Your task to perform on an android device: turn notification dots on Image 0: 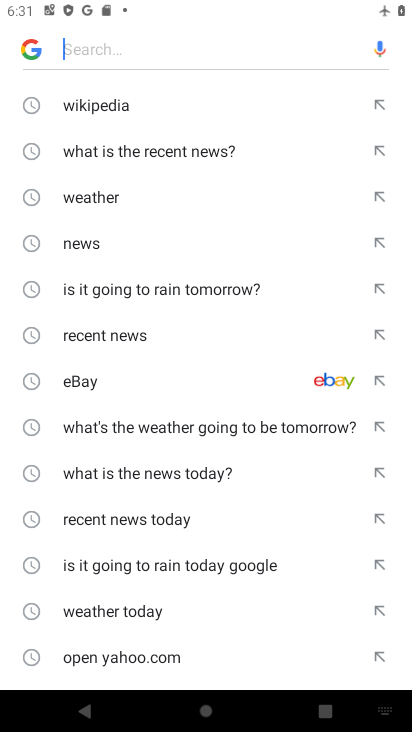
Step 0: press home button
Your task to perform on an android device: turn notification dots on Image 1: 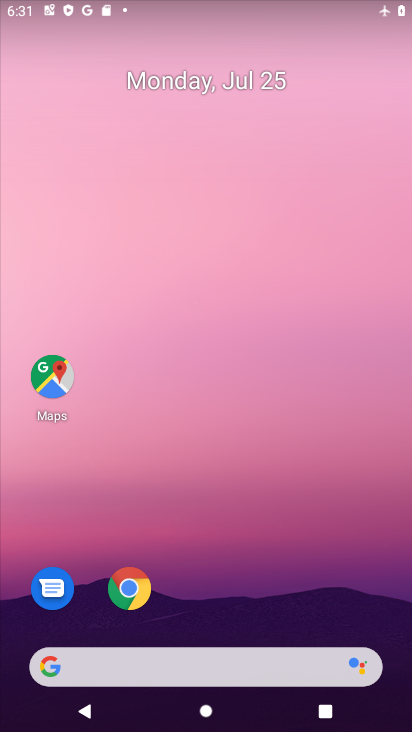
Step 1: drag from (314, 1) to (232, 482)
Your task to perform on an android device: turn notification dots on Image 2: 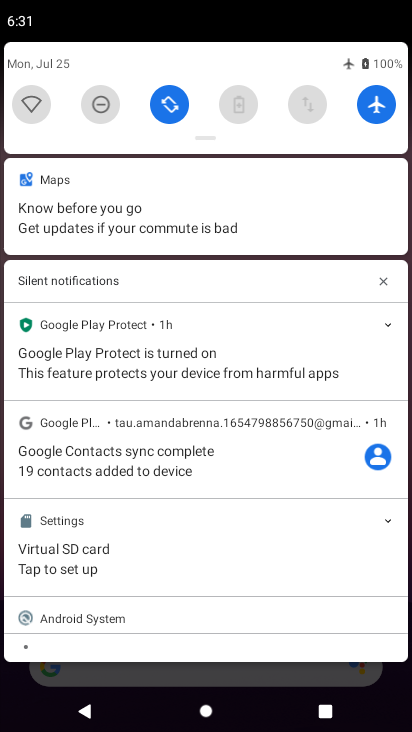
Step 2: click (382, 103)
Your task to perform on an android device: turn notification dots on Image 3: 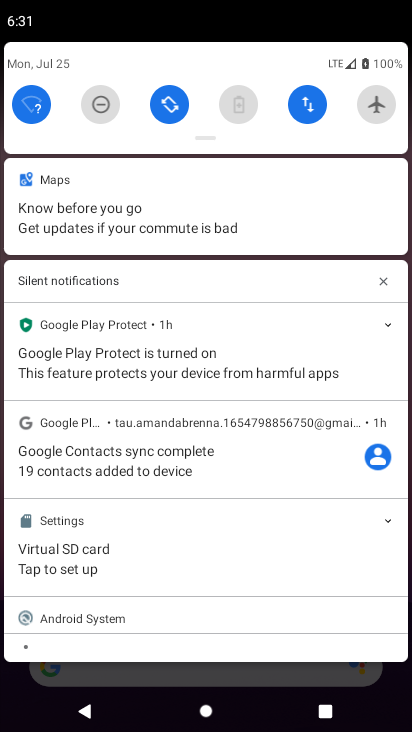
Step 3: click (297, 685)
Your task to perform on an android device: turn notification dots on Image 4: 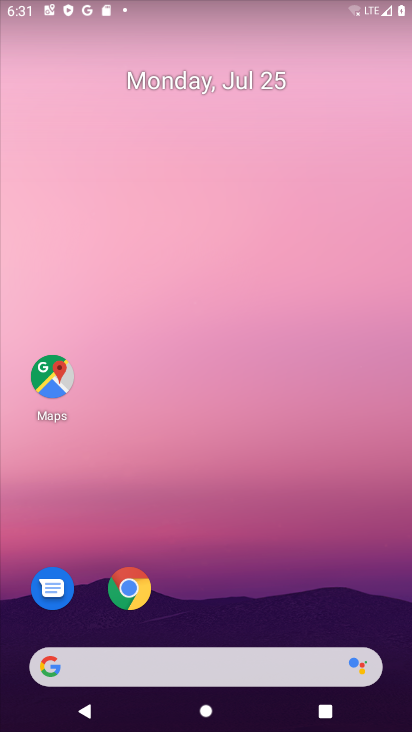
Step 4: drag from (274, 581) to (287, 223)
Your task to perform on an android device: turn notification dots on Image 5: 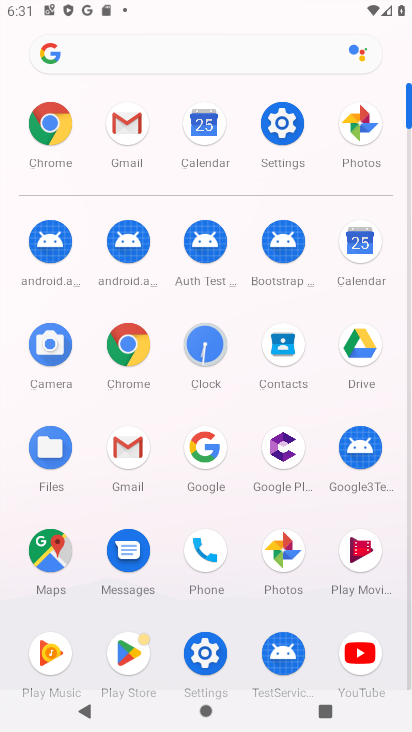
Step 5: click (213, 660)
Your task to perform on an android device: turn notification dots on Image 6: 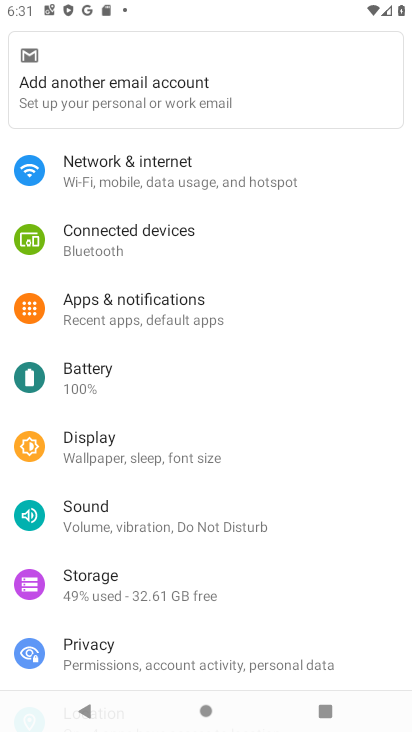
Step 6: task complete